Your task to perform on an android device: change your default location settings in chrome Image 0: 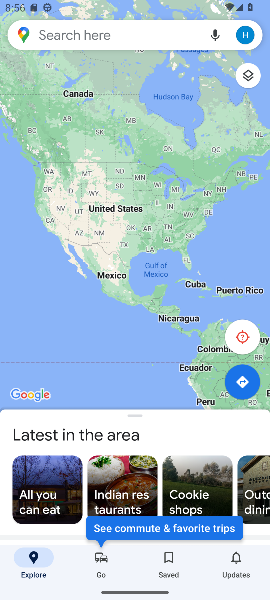
Step 0: press home button
Your task to perform on an android device: change your default location settings in chrome Image 1: 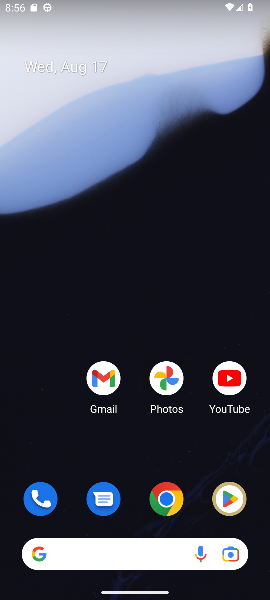
Step 1: click (164, 500)
Your task to perform on an android device: change your default location settings in chrome Image 2: 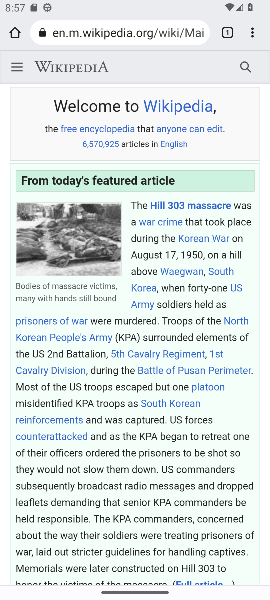
Step 2: click (248, 32)
Your task to perform on an android device: change your default location settings in chrome Image 3: 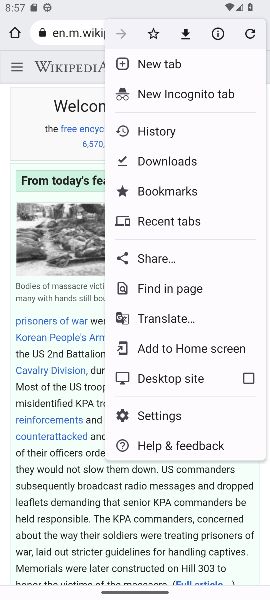
Step 3: click (167, 410)
Your task to perform on an android device: change your default location settings in chrome Image 4: 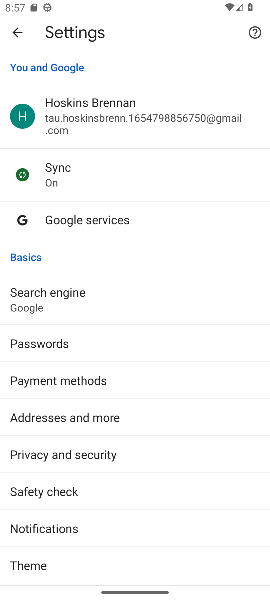
Step 4: drag from (101, 473) to (78, 289)
Your task to perform on an android device: change your default location settings in chrome Image 5: 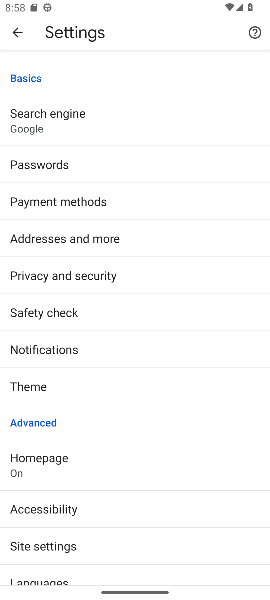
Step 5: drag from (70, 537) to (52, 307)
Your task to perform on an android device: change your default location settings in chrome Image 6: 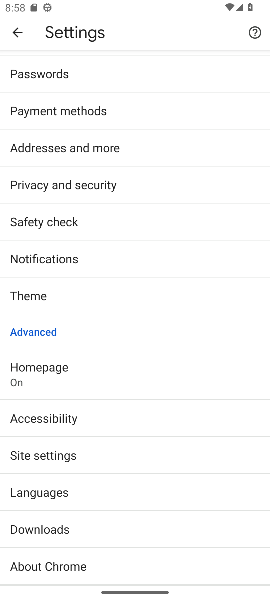
Step 6: click (85, 456)
Your task to perform on an android device: change your default location settings in chrome Image 7: 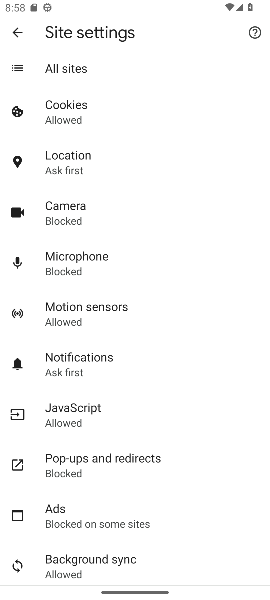
Step 7: click (68, 163)
Your task to perform on an android device: change your default location settings in chrome Image 8: 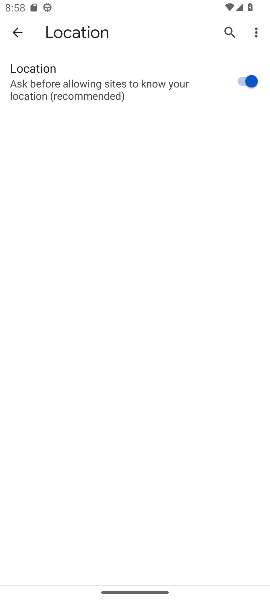
Step 8: click (253, 75)
Your task to perform on an android device: change your default location settings in chrome Image 9: 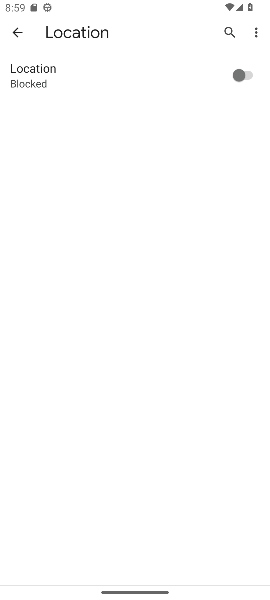
Step 9: task complete